Your task to perform on an android device: Clear the shopping cart on ebay.com. Search for "dell alienware" on ebay.com, select the first entry, and add it to the cart. Image 0: 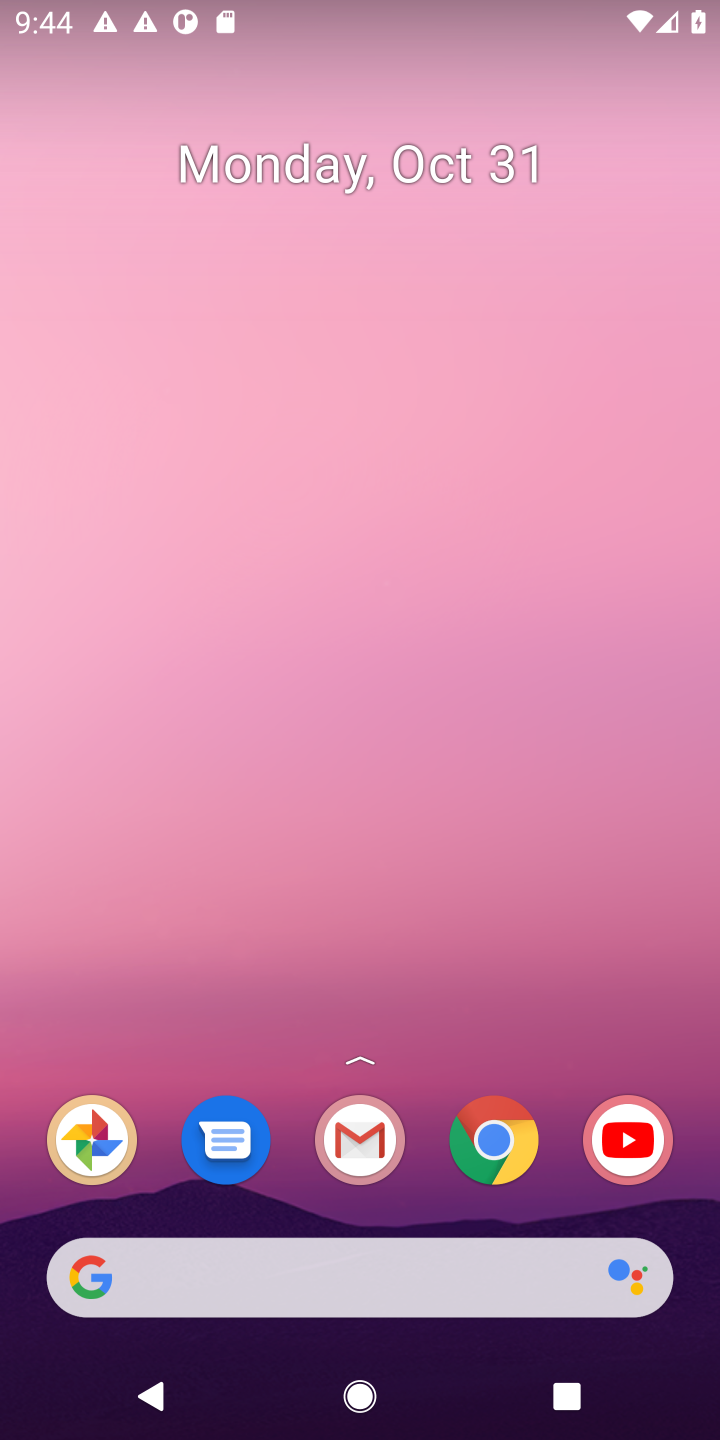
Step 0: press home button
Your task to perform on an android device: Clear the shopping cart on ebay.com. Search for "dell alienware" on ebay.com, select the first entry, and add it to the cart. Image 1: 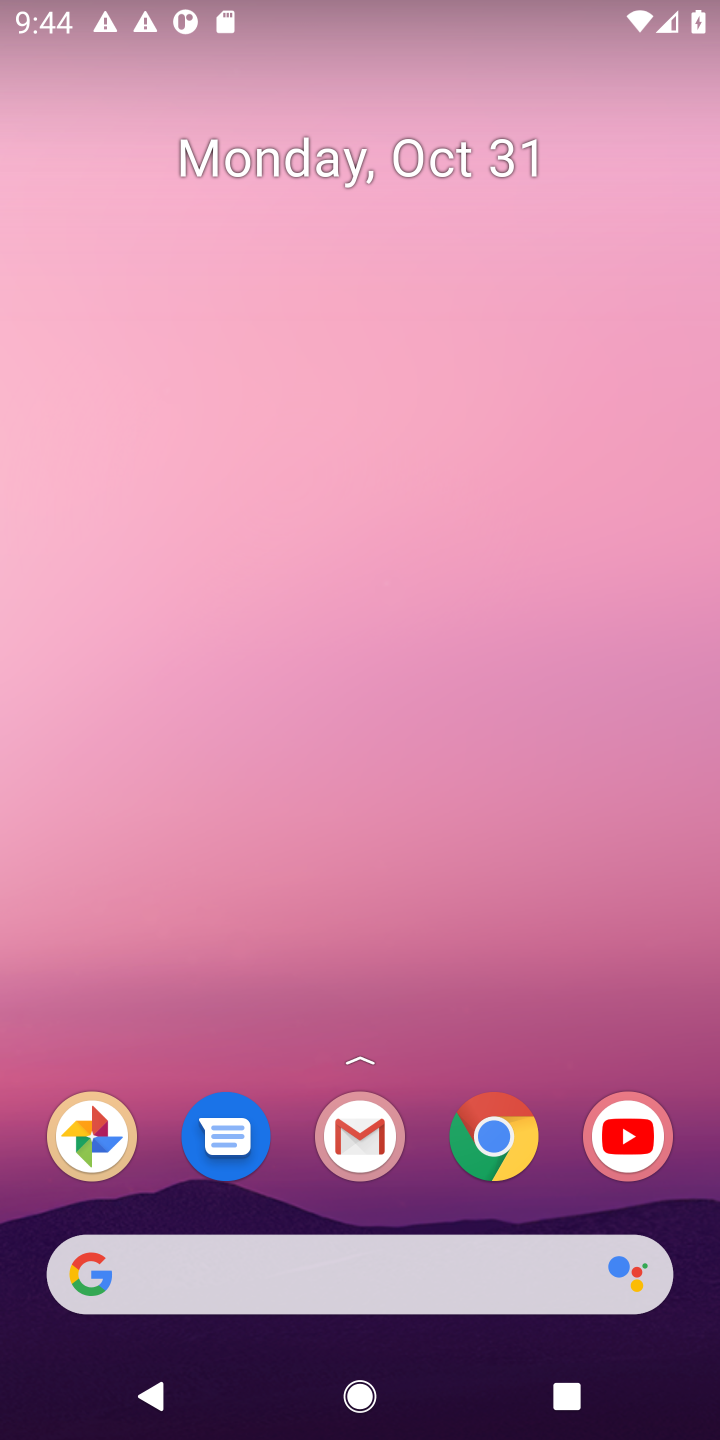
Step 1: click (145, 1269)
Your task to perform on an android device: Clear the shopping cart on ebay.com. Search for "dell alienware" on ebay.com, select the first entry, and add it to the cart. Image 2: 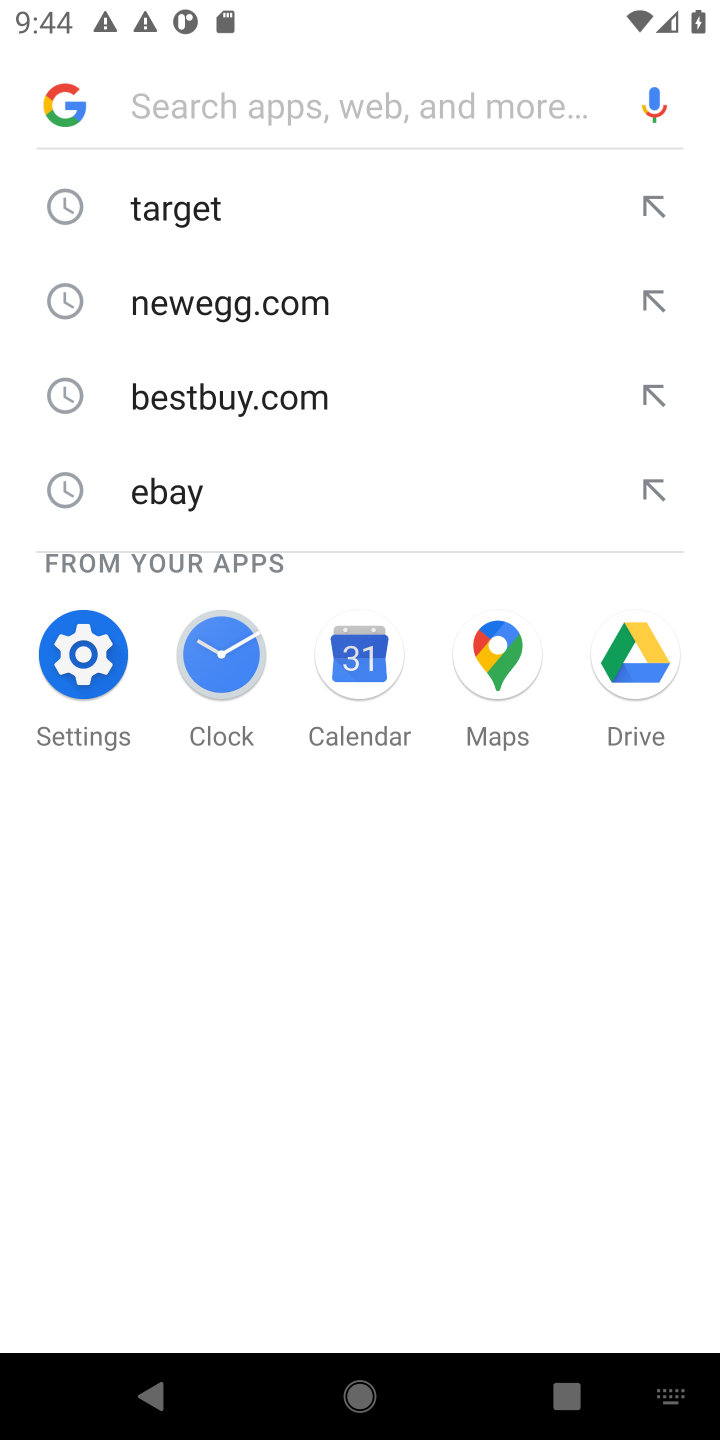
Step 2: press enter
Your task to perform on an android device: Clear the shopping cart on ebay.com. Search for "dell alienware" on ebay.com, select the first entry, and add it to the cart. Image 3: 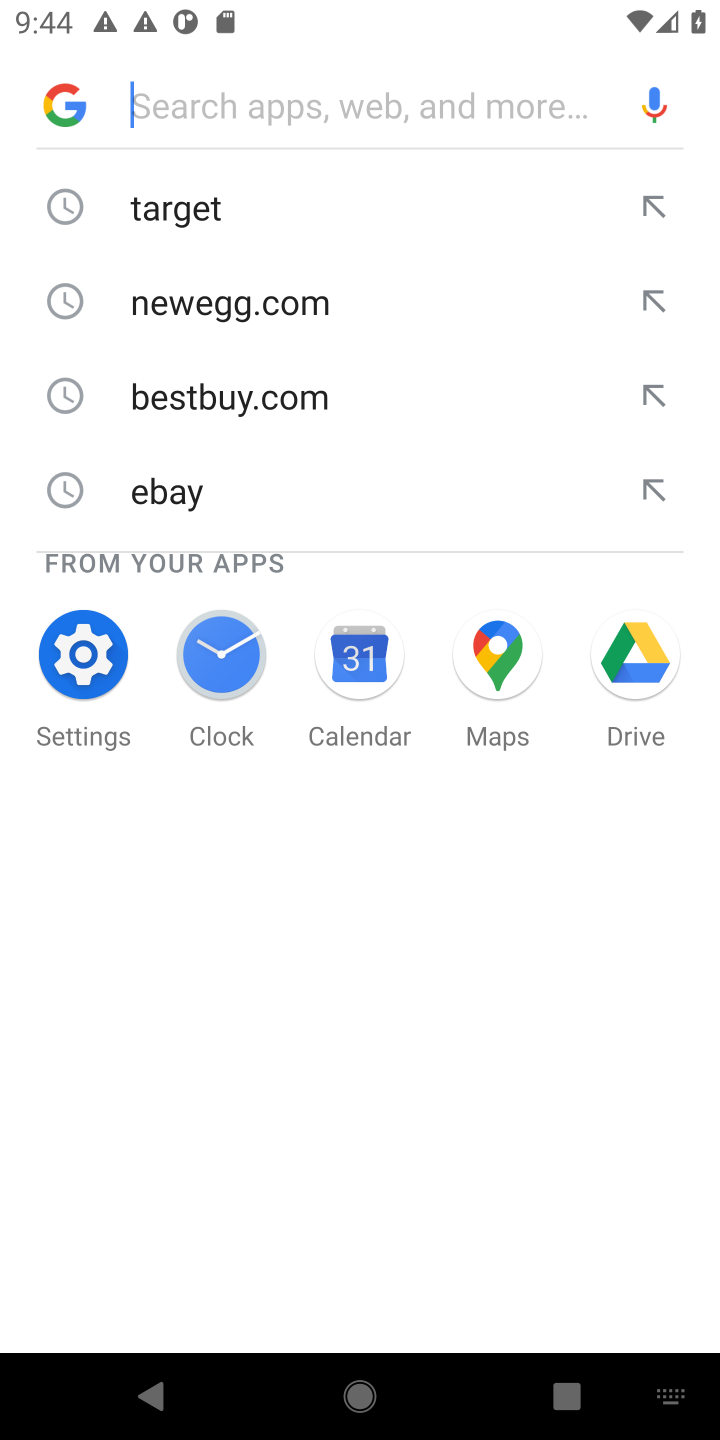
Step 3: type " ebay.com"
Your task to perform on an android device: Clear the shopping cart on ebay.com. Search for "dell alienware" on ebay.com, select the first entry, and add it to the cart. Image 4: 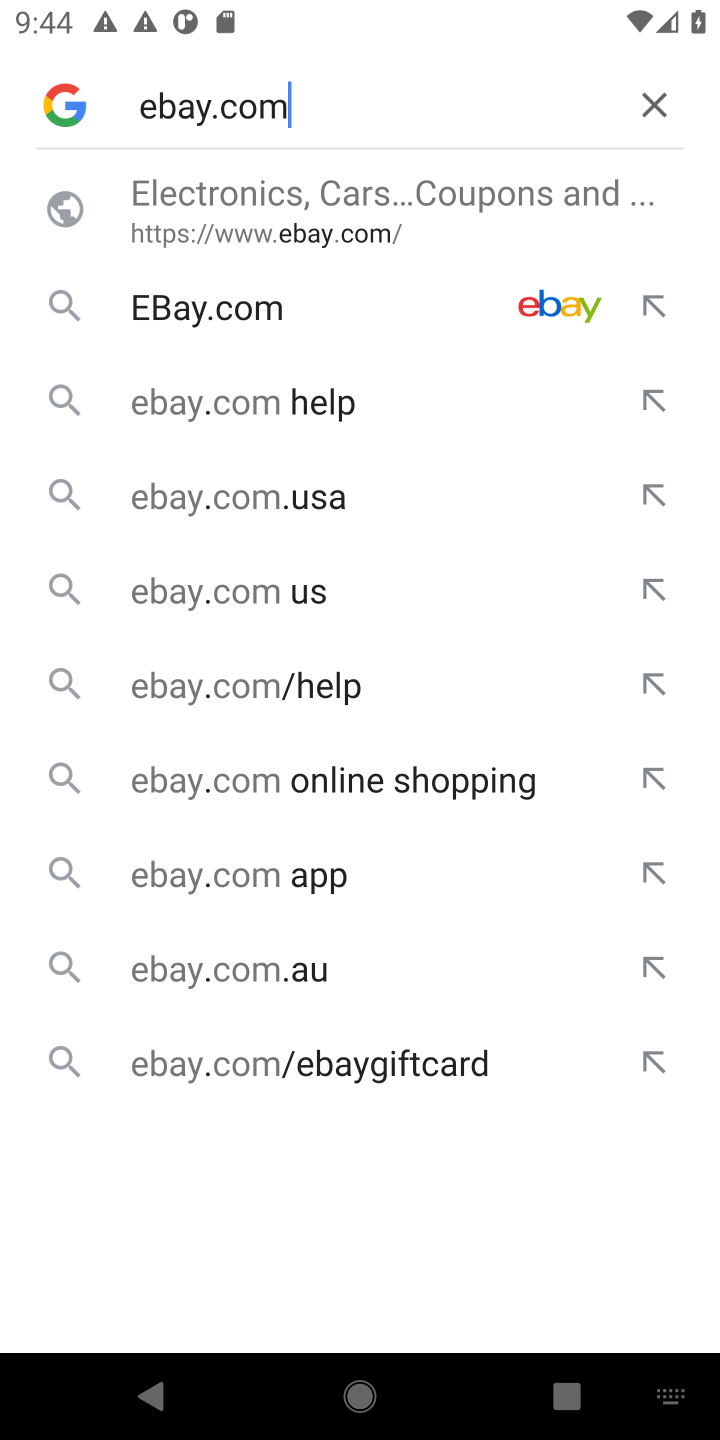
Step 4: click (207, 301)
Your task to perform on an android device: Clear the shopping cart on ebay.com. Search for "dell alienware" on ebay.com, select the first entry, and add it to the cart. Image 5: 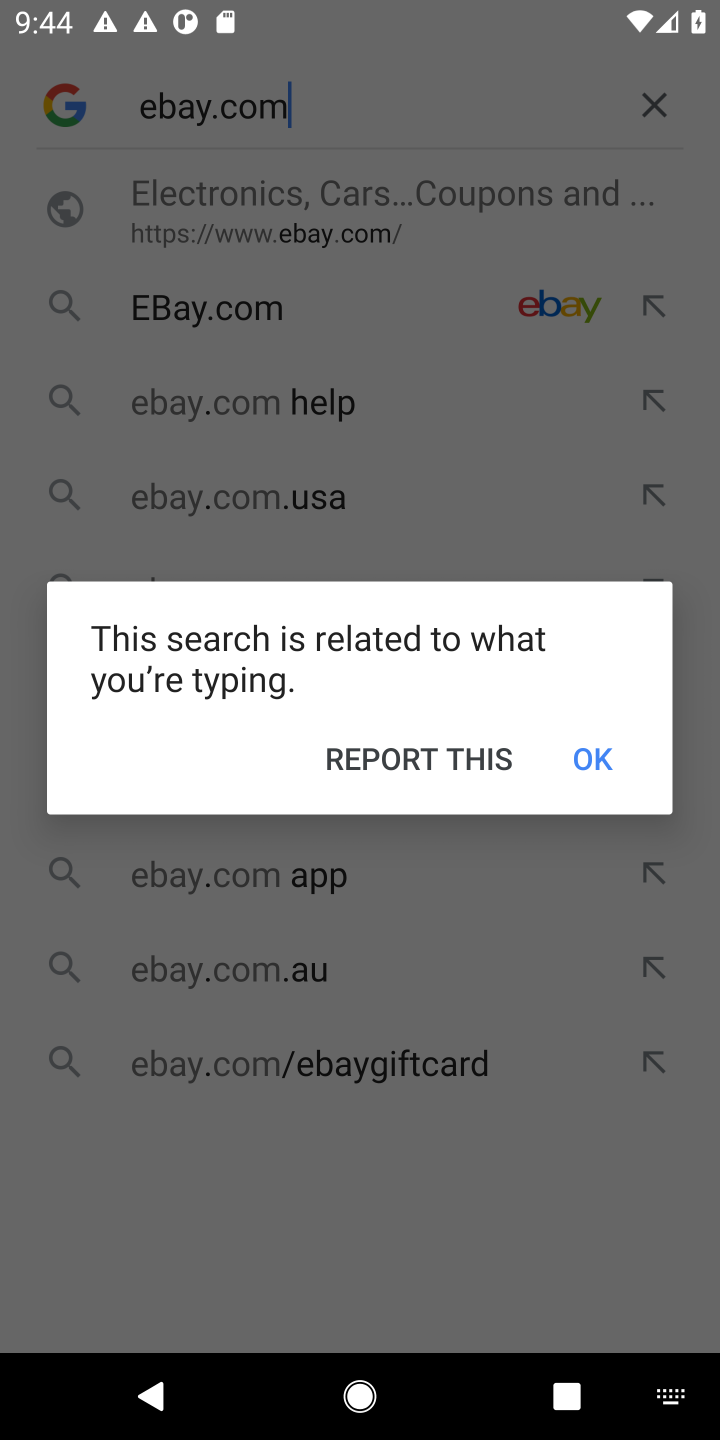
Step 5: click (596, 752)
Your task to perform on an android device: Clear the shopping cart on ebay.com. Search for "dell alienware" on ebay.com, select the first entry, and add it to the cart. Image 6: 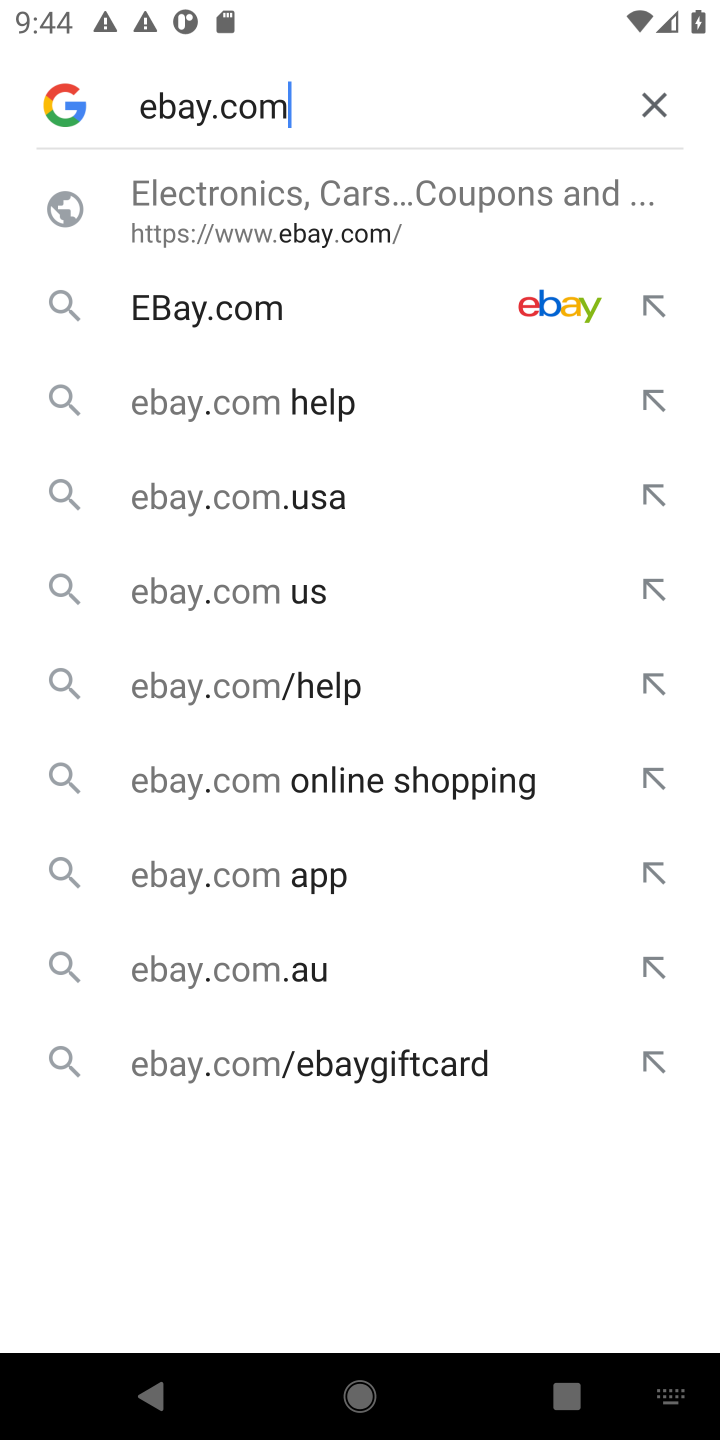
Step 6: press enter
Your task to perform on an android device: Clear the shopping cart on ebay.com. Search for "dell alienware" on ebay.com, select the first entry, and add it to the cart. Image 7: 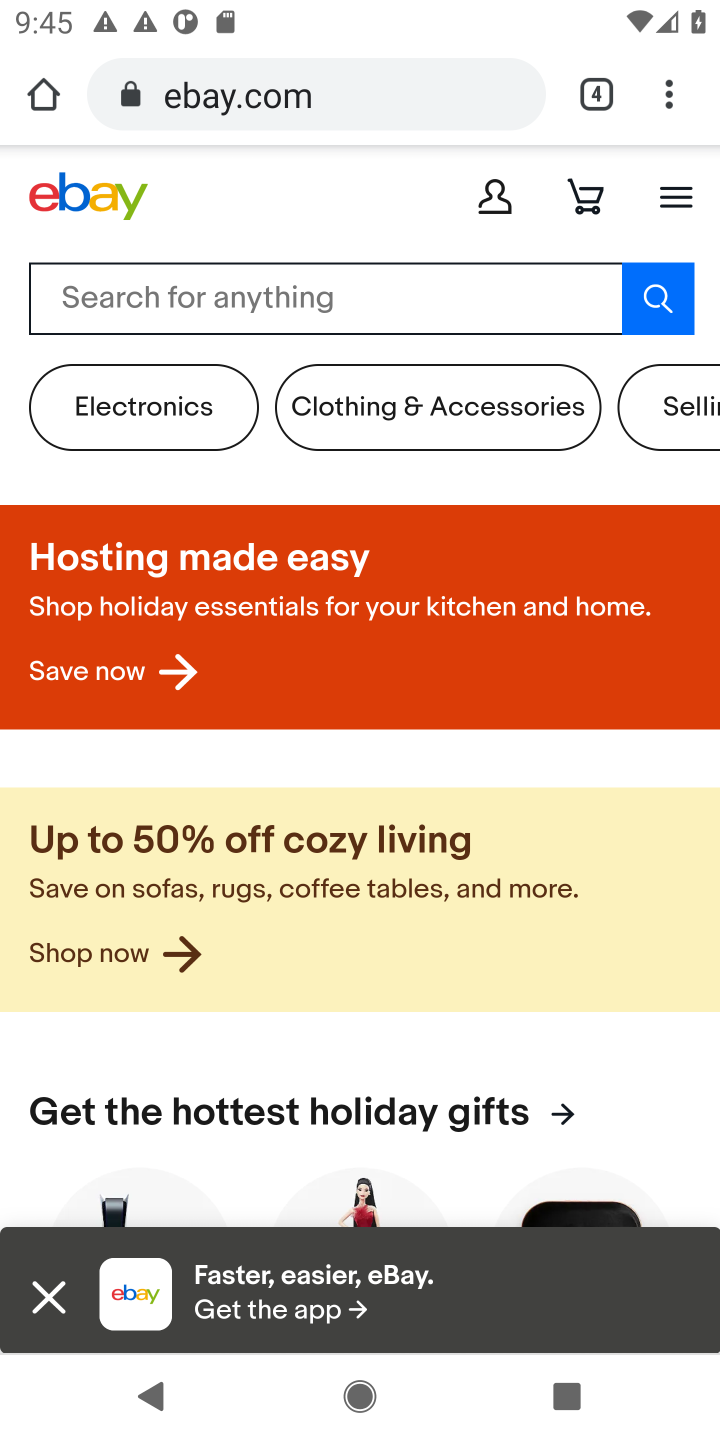
Step 7: click (584, 203)
Your task to perform on an android device: Clear the shopping cart on ebay.com. Search for "dell alienware" on ebay.com, select the first entry, and add it to the cart. Image 8: 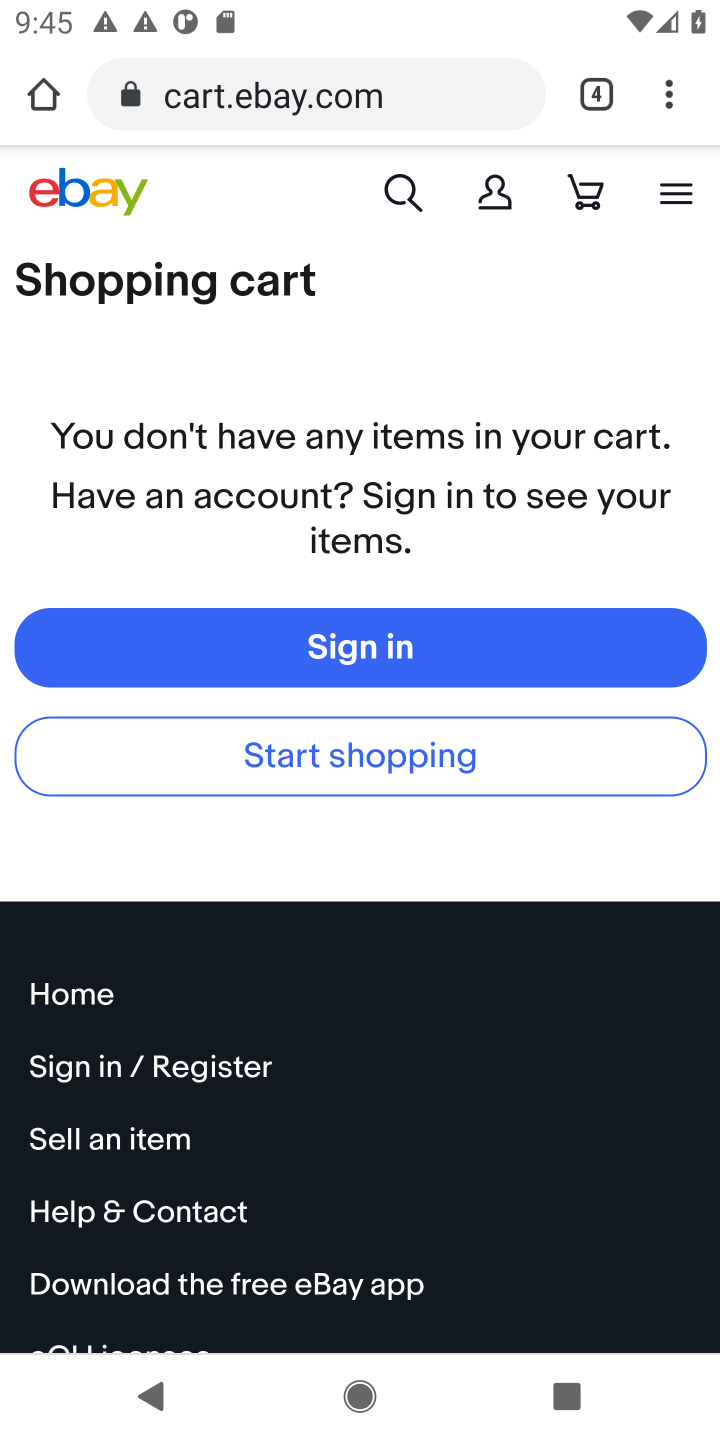
Step 8: click (400, 190)
Your task to perform on an android device: Clear the shopping cart on ebay.com. Search for "dell alienware" on ebay.com, select the first entry, and add it to the cart. Image 9: 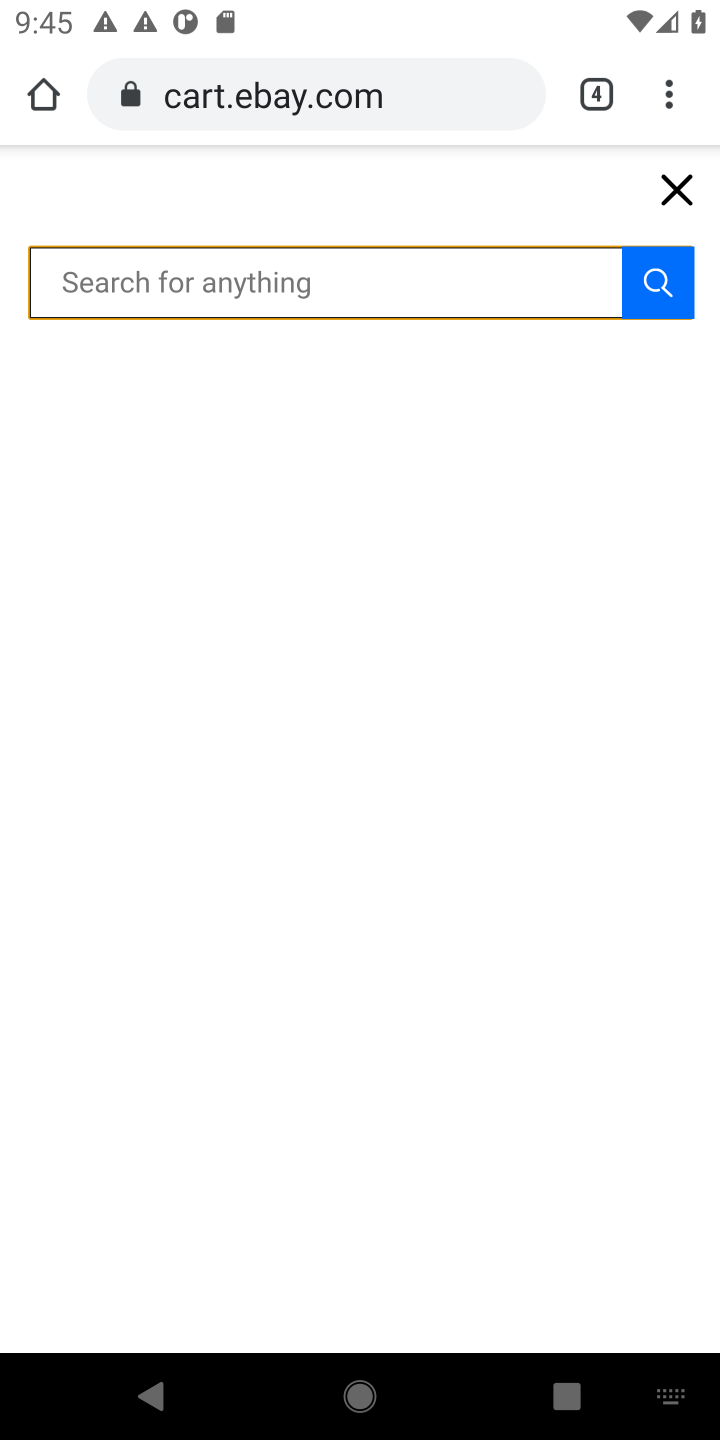
Step 9: type "dell alienware"
Your task to perform on an android device: Clear the shopping cart on ebay.com. Search for "dell alienware" on ebay.com, select the first entry, and add it to the cart. Image 10: 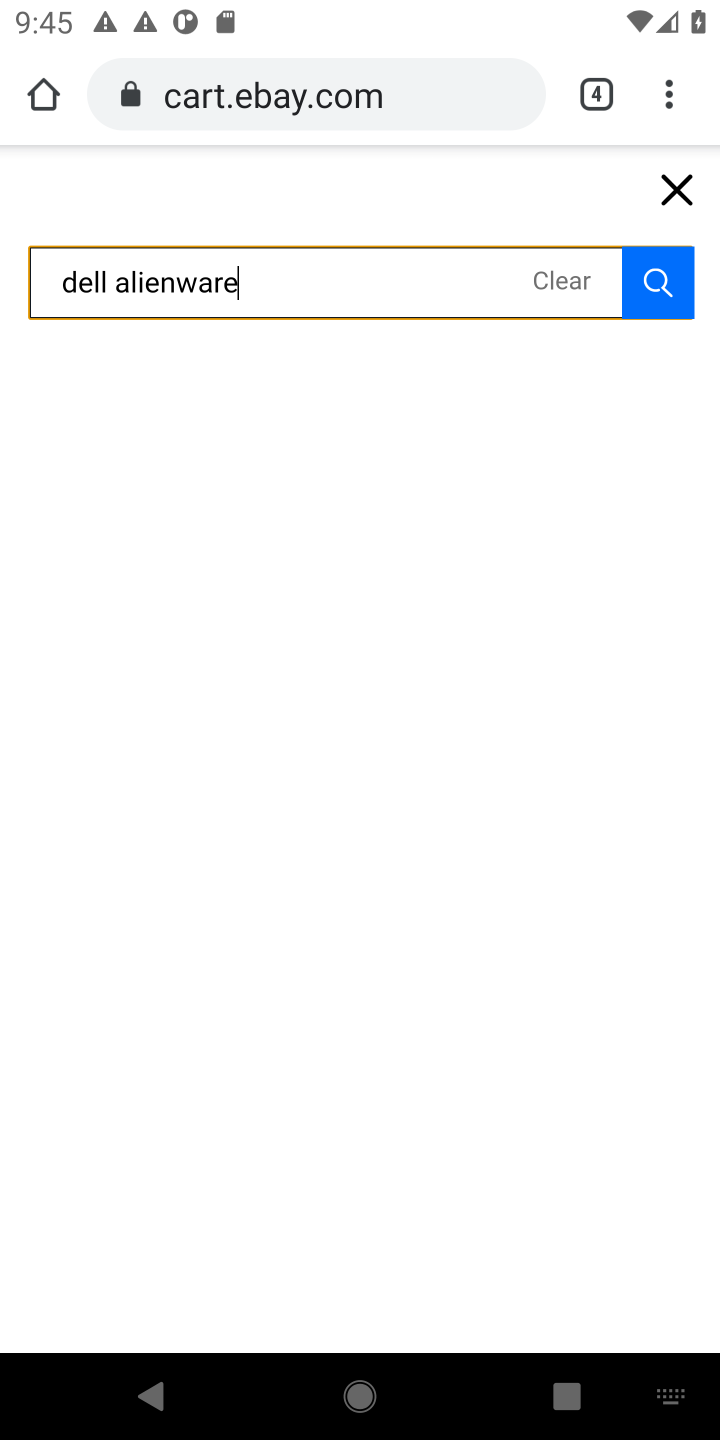
Step 10: press enter
Your task to perform on an android device: Clear the shopping cart on ebay.com. Search for "dell alienware" on ebay.com, select the first entry, and add it to the cart. Image 11: 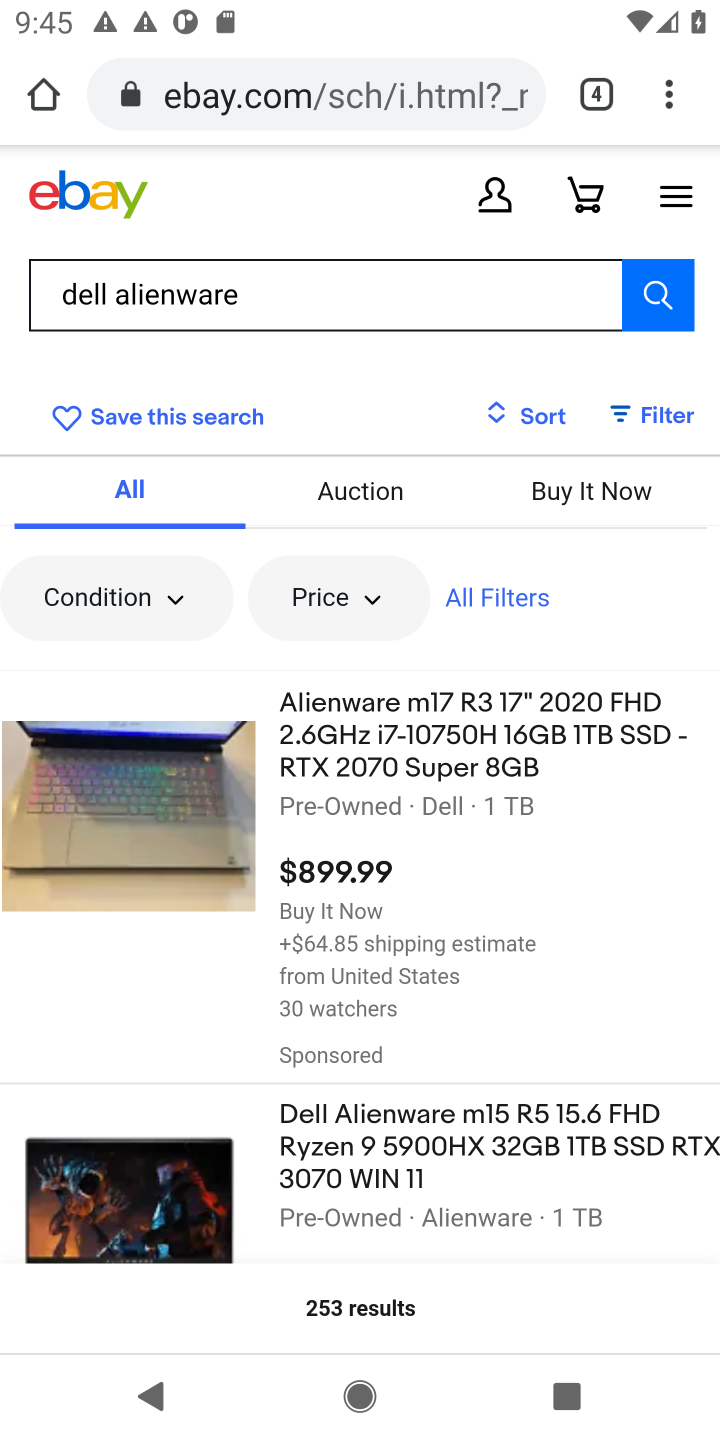
Step 11: click (387, 1145)
Your task to perform on an android device: Clear the shopping cart on ebay.com. Search for "dell alienware" on ebay.com, select the first entry, and add it to the cart. Image 12: 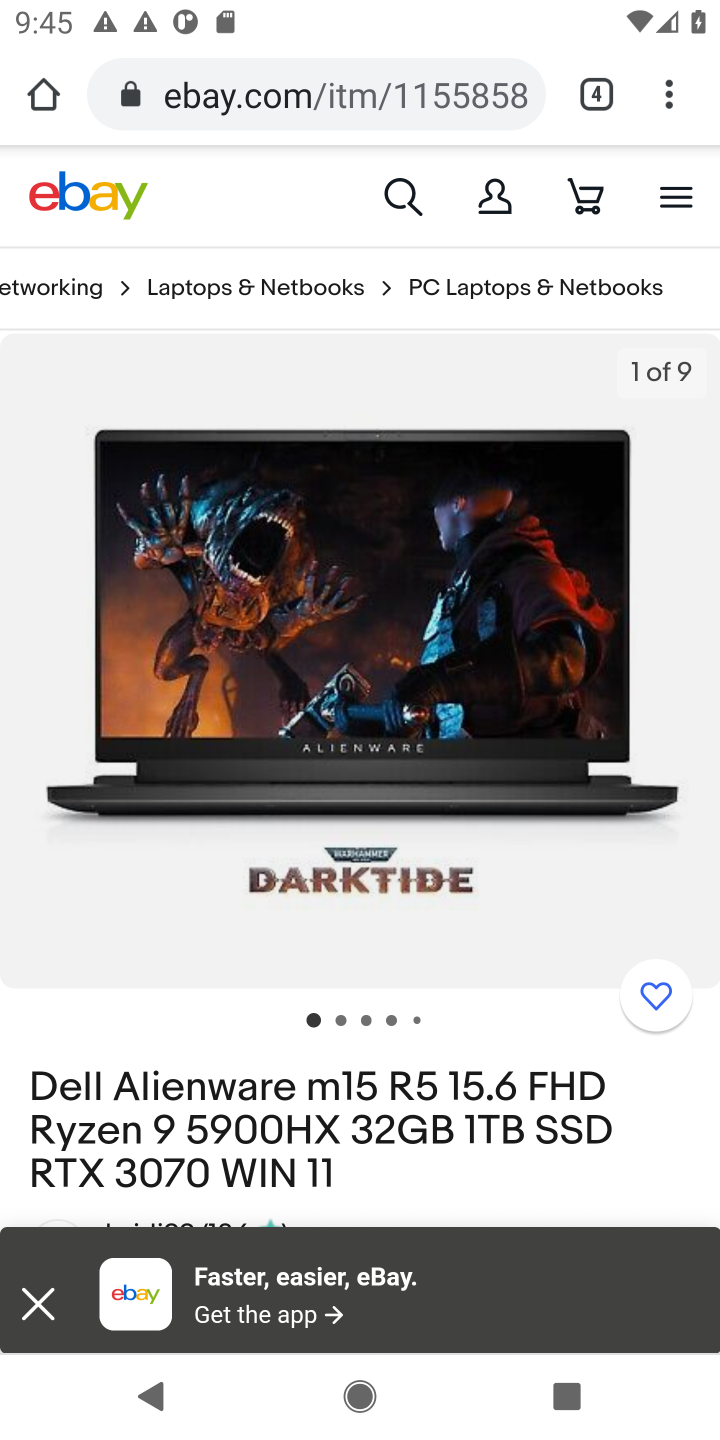
Step 12: drag from (502, 1163) to (523, 667)
Your task to perform on an android device: Clear the shopping cart on ebay.com. Search for "dell alienware" on ebay.com, select the first entry, and add it to the cart. Image 13: 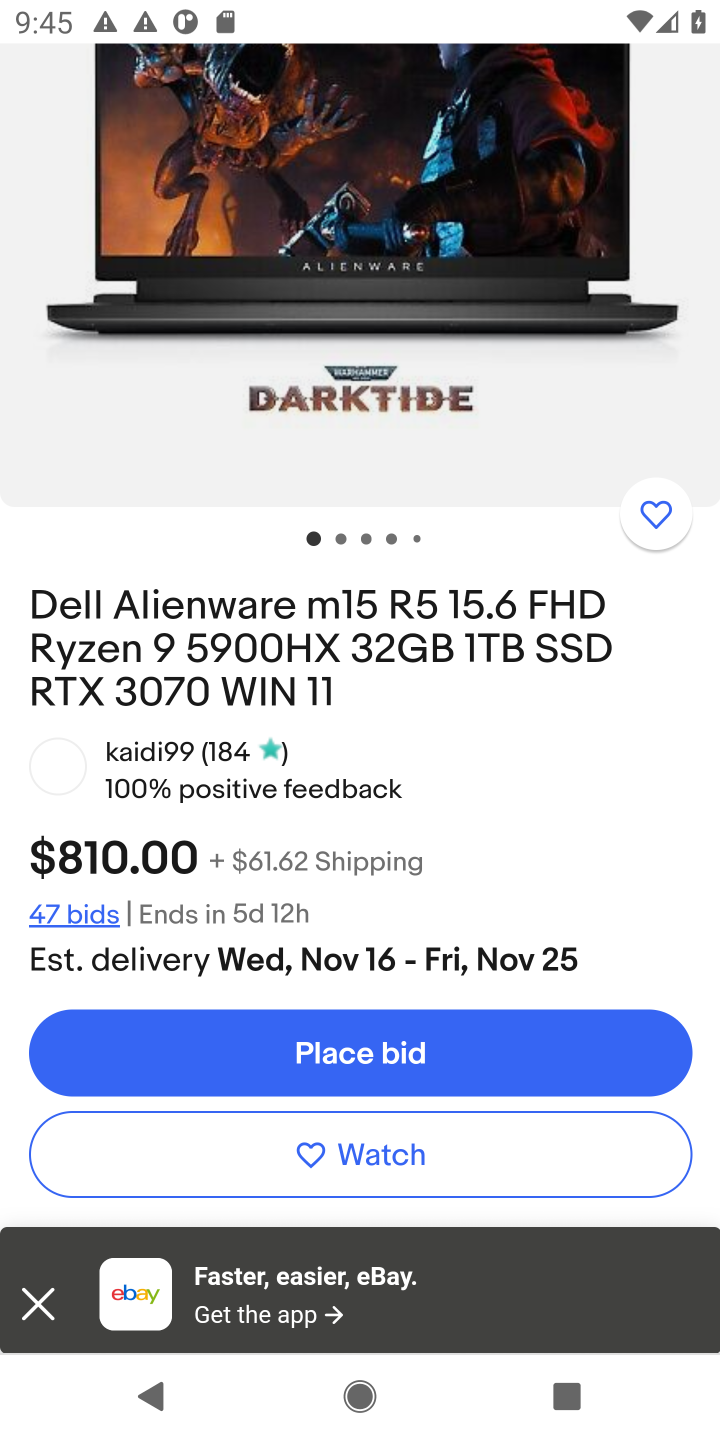
Step 13: drag from (444, 1076) to (459, 719)
Your task to perform on an android device: Clear the shopping cart on ebay.com. Search for "dell alienware" on ebay.com, select the first entry, and add it to the cart. Image 14: 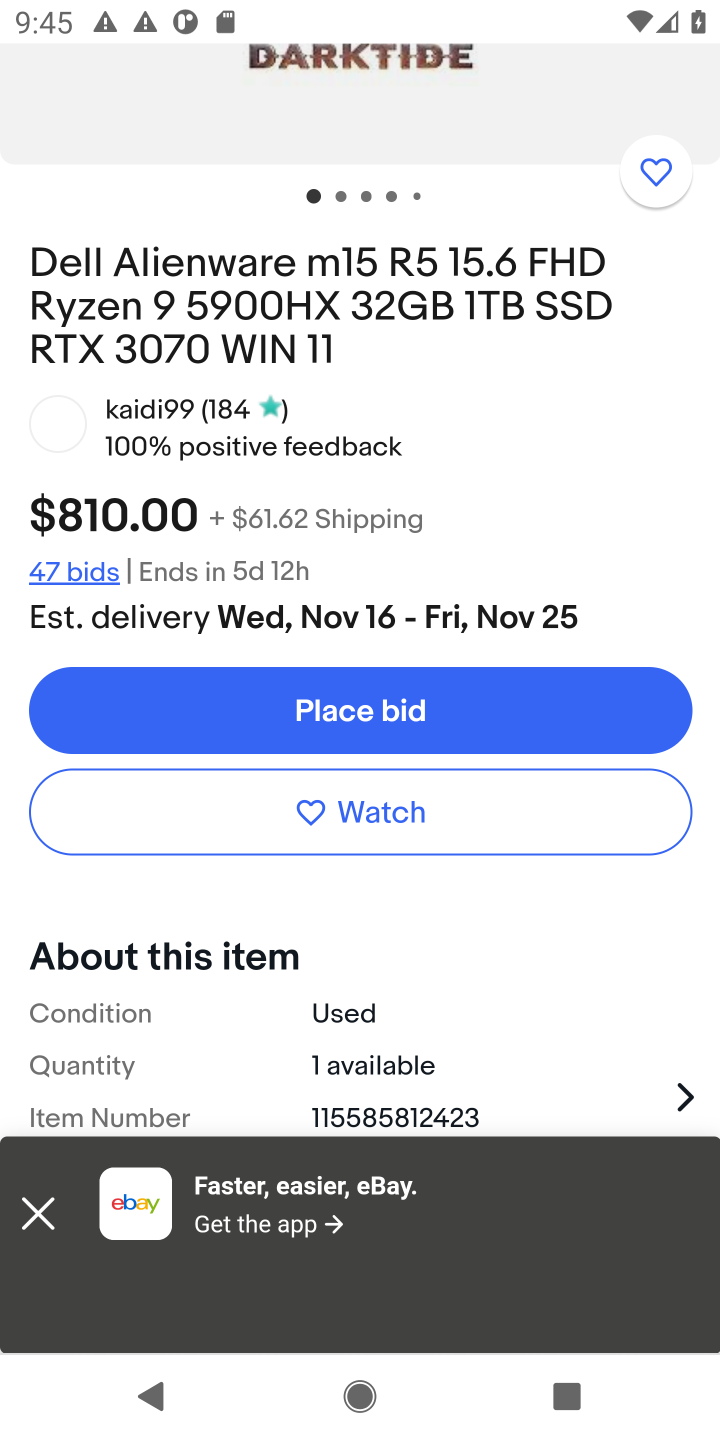
Step 14: drag from (401, 924) to (383, 399)
Your task to perform on an android device: Clear the shopping cart on ebay.com. Search for "dell alienware" on ebay.com, select the first entry, and add it to the cart. Image 15: 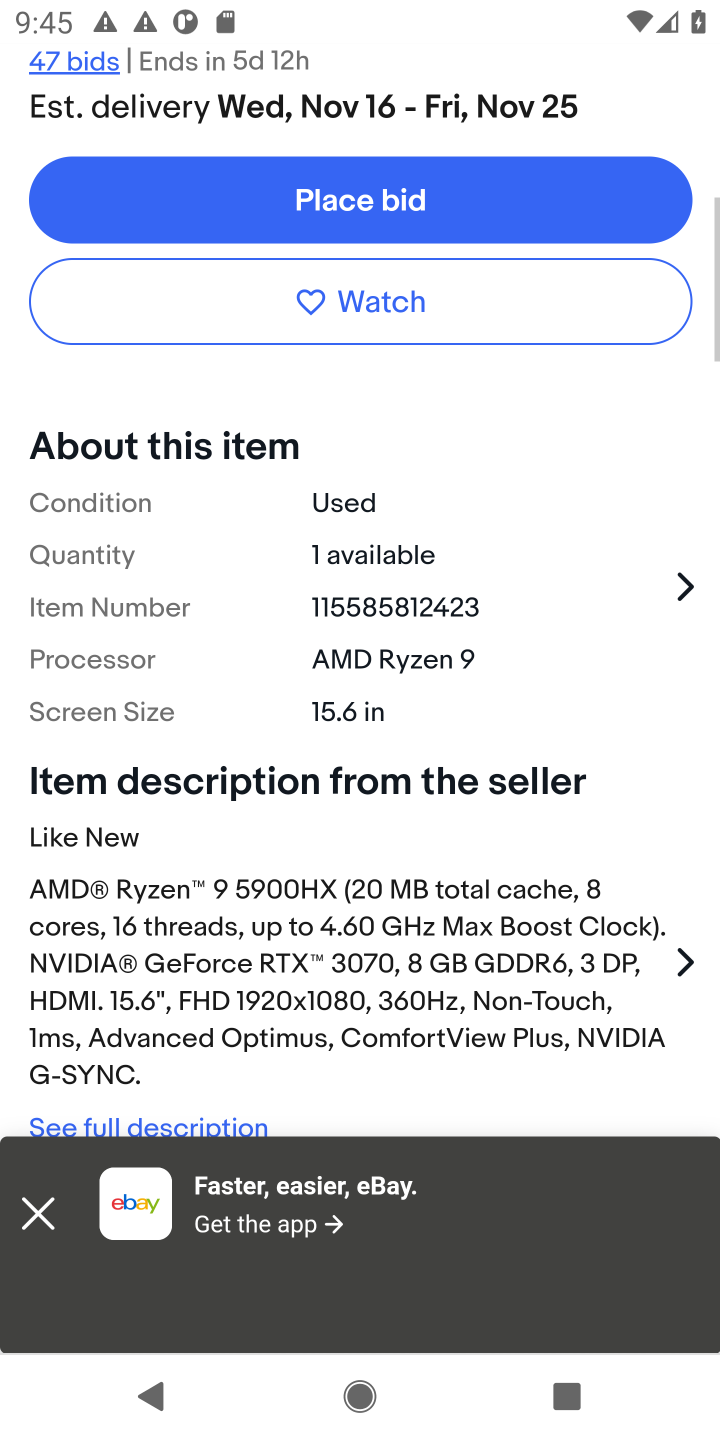
Step 15: drag from (409, 986) to (412, 487)
Your task to perform on an android device: Clear the shopping cart on ebay.com. Search for "dell alienware" on ebay.com, select the first entry, and add it to the cart. Image 16: 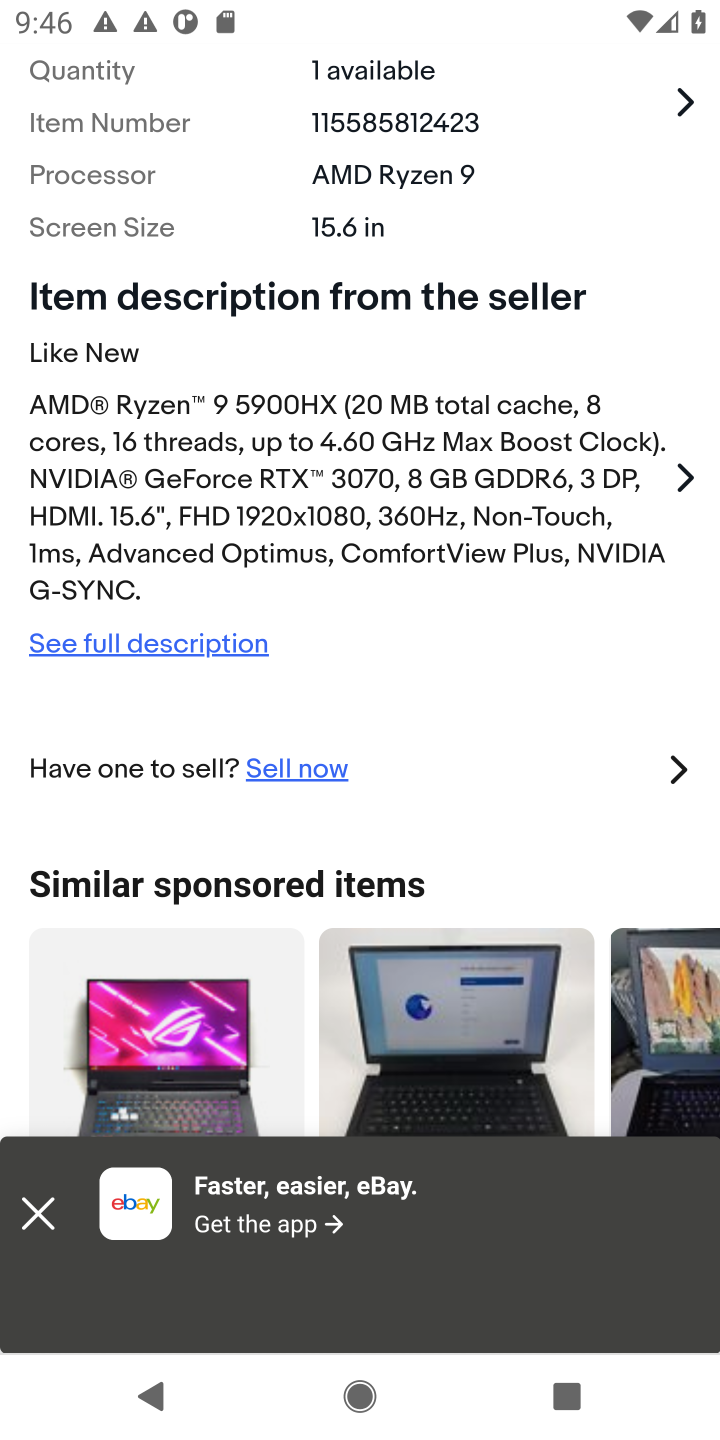
Step 16: drag from (405, 595) to (444, 213)
Your task to perform on an android device: Clear the shopping cart on ebay.com. Search for "dell alienware" on ebay.com, select the first entry, and add it to the cart. Image 17: 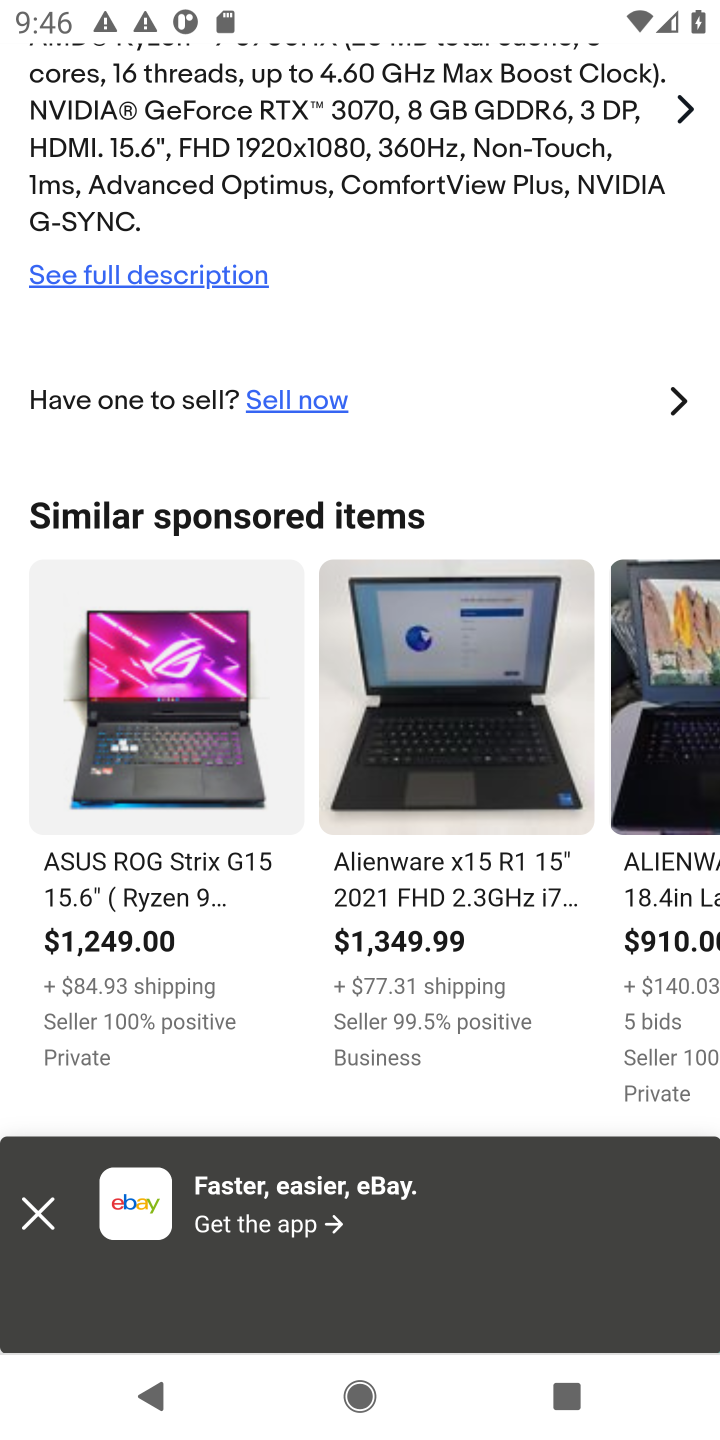
Step 17: drag from (464, 518) to (464, 200)
Your task to perform on an android device: Clear the shopping cart on ebay.com. Search for "dell alienware" on ebay.com, select the first entry, and add it to the cart. Image 18: 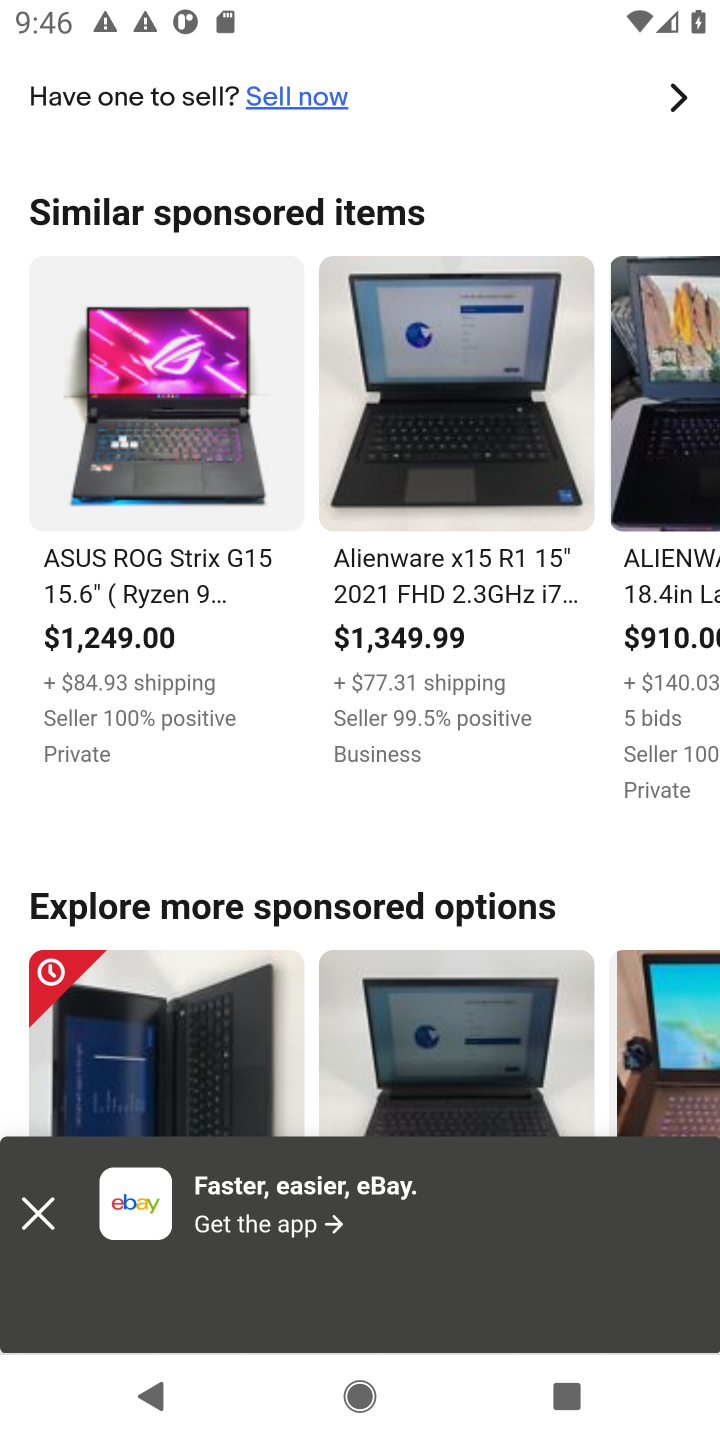
Step 18: drag from (459, 344) to (461, 939)
Your task to perform on an android device: Clear the shopping cart on ebay.com. Search for "dell alienware" on ebay.com, select the first entry, and add it to the cart. Image 19: 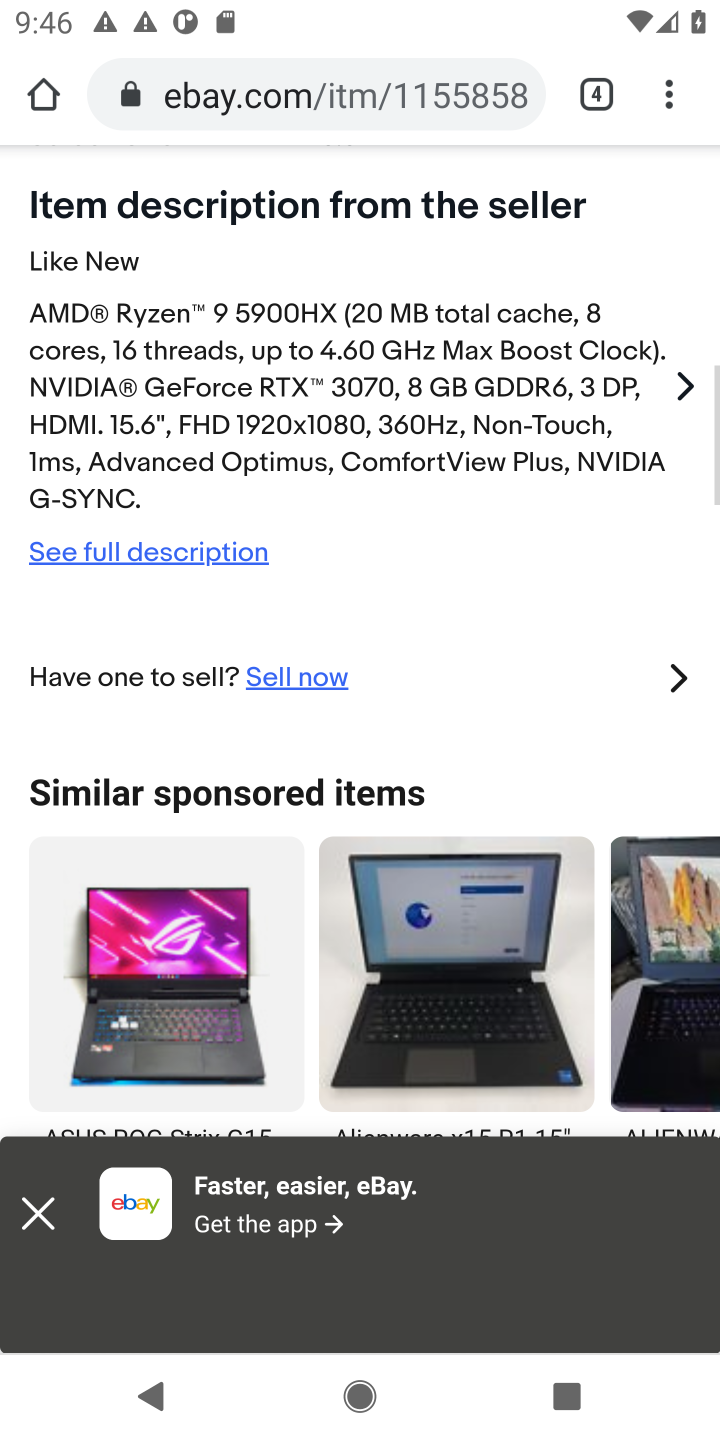
Step 19: drag from (460, 247) to (473, 805)
Your task to perform on an android device: Clear the shopping cart on ebay.com. Search for "dell alienware" on ebay.com, select the first entry, and add it to the cart. Image 20: 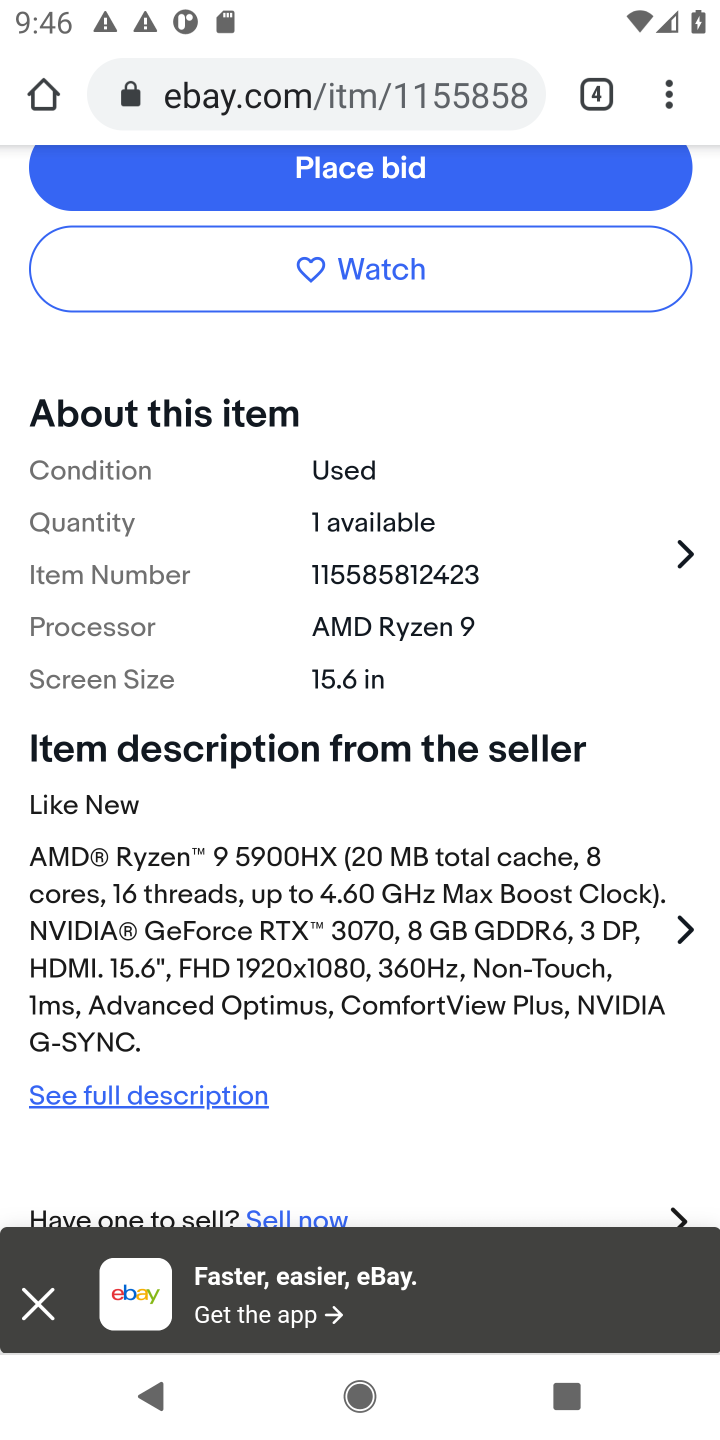
Step 20: drag from (470, 201) to (472, 782)
Your task to perform on an android device: Clear the shopping cart on ebay.com. Search for "dell alienware" on ebay.com, select the first entry, and add it to the cart. Image 21: 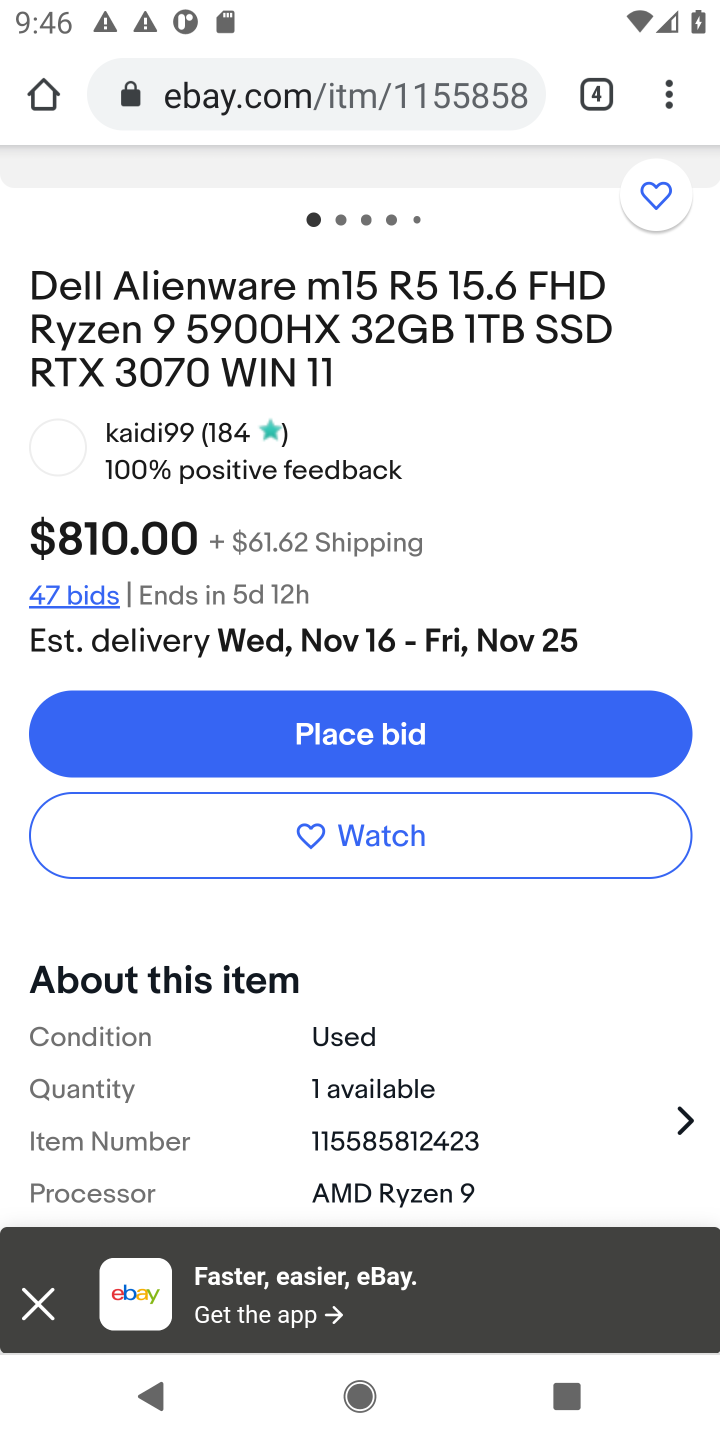
Step 21: click (370, 733)
Your task to perform on an android device: Clear the shopping cart on ebay.com. Search for "dell alienware" on ebay.com, select the first entry, and add it to the cart. Image 22: 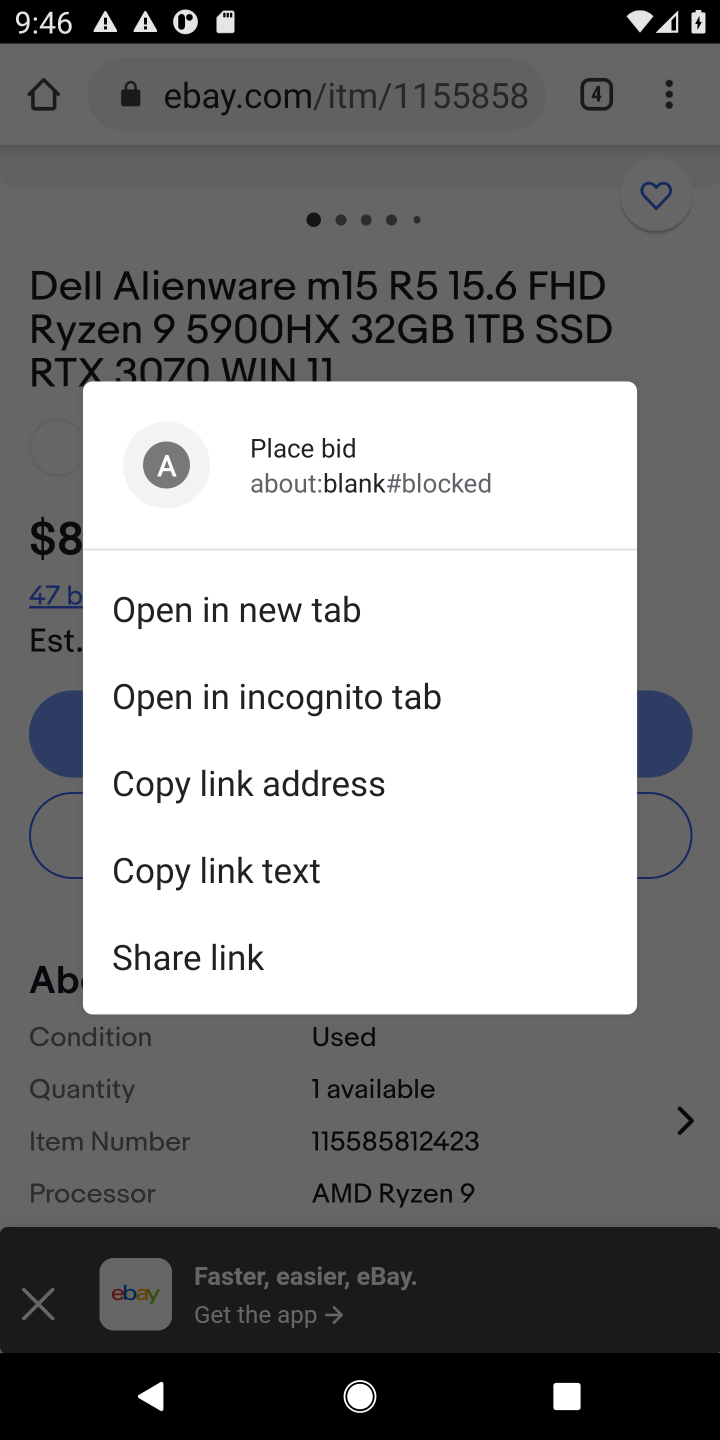
Step 22: click (687, 507)
Your task to perform on an android device: Clear the shopping cart on ebay.com. Search for "dell alienware" on ebay.com, select the first entry, and add it to the cart. Image 23: 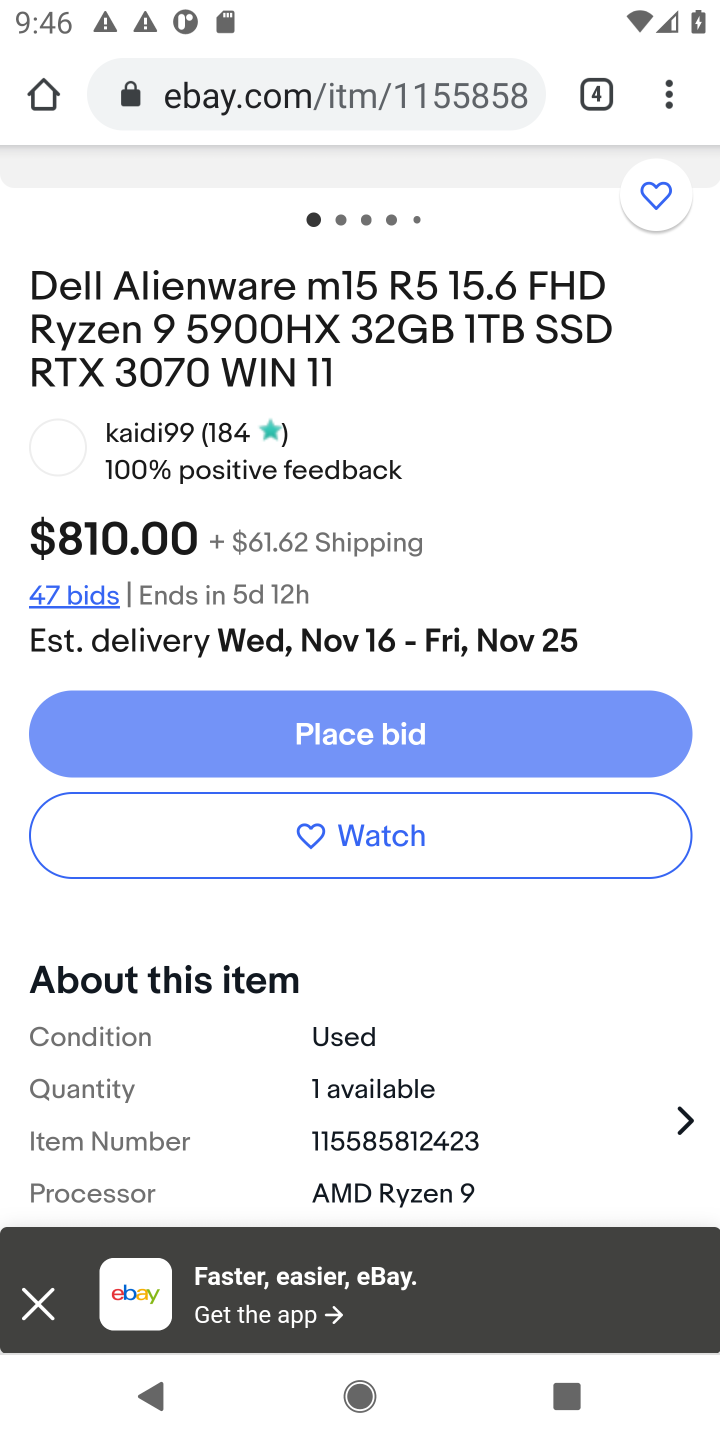
Step 23: task complete